Your task to perform on an android device: change the clock display to show seconds Image 0: 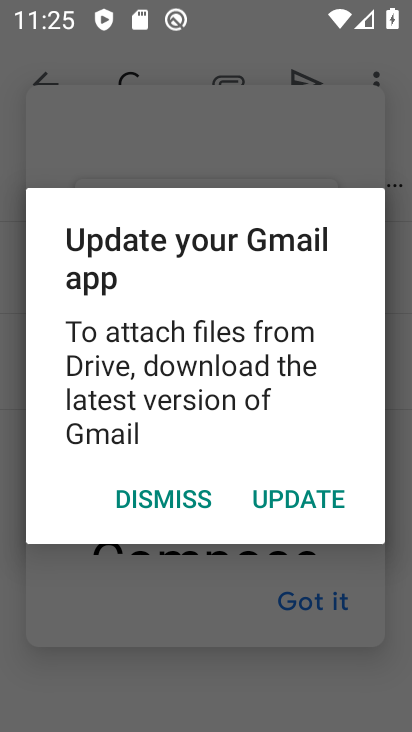
Step 0: press home button
Your task to perform on an android device: change the clock display to show seconds Image 1: 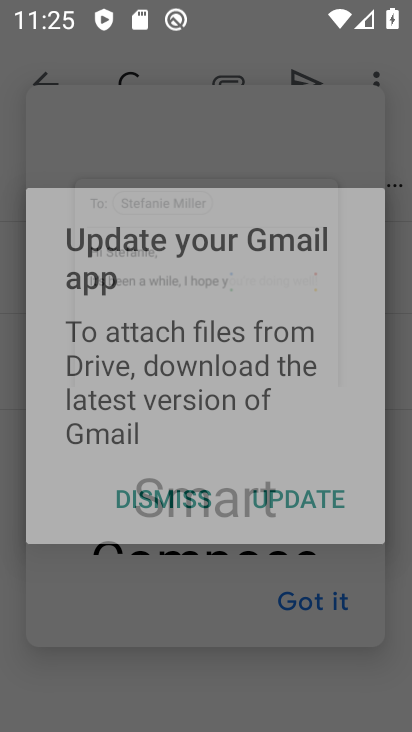
Step 1: press home button
Your task to perform on an android device: change the clock display to show seconds Image 2: 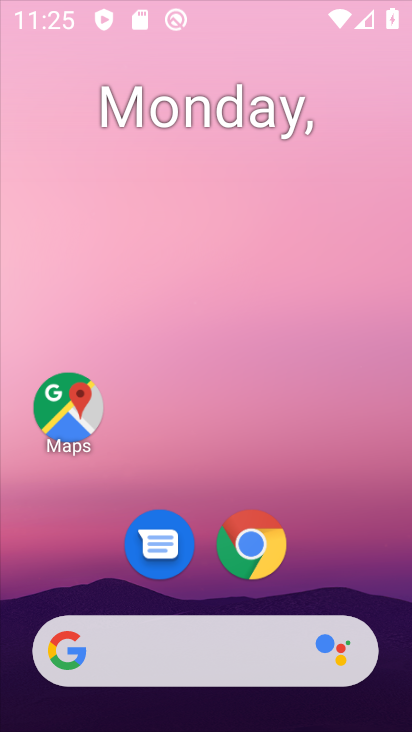
Step 2: press home button
Your task to perform on an android device: change the clock display to show seconds Image 3: 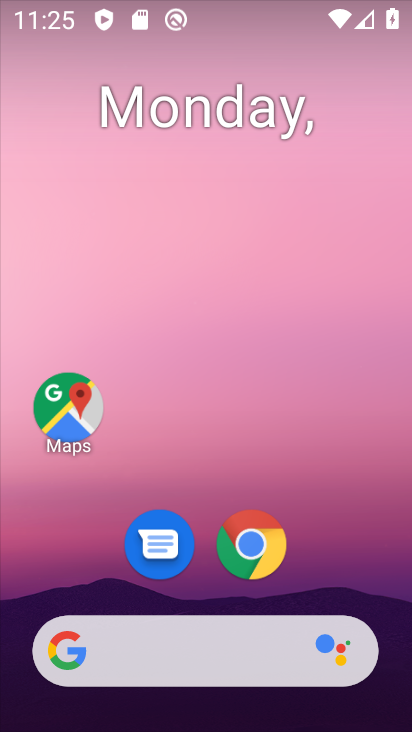
Step 3: drag from (339, 461) to (275, 170)
Your task to perform on an android device: change the clock display to show seconds Image 4: 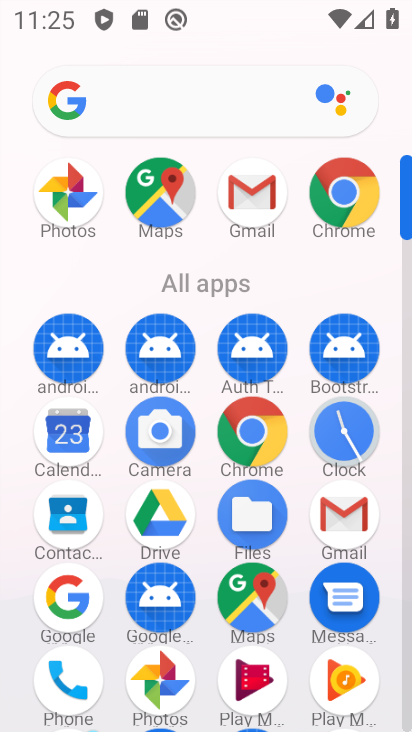
Step 4: click (327, 430)
Your task to perform on an android device: change the clock display to show seconds Image 5: 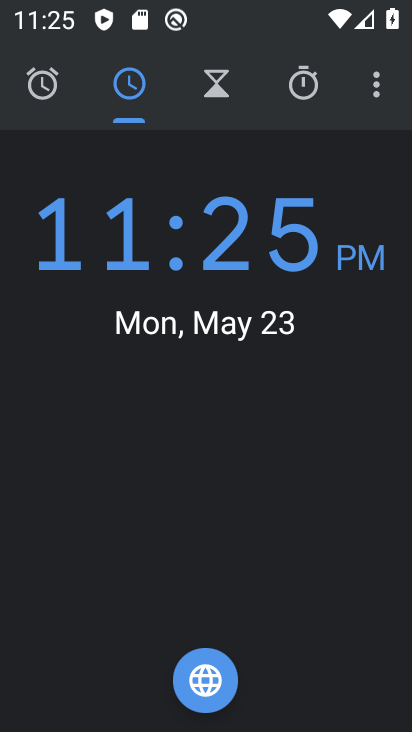
Step 5: click (362, 80)
Your task to perform on an android device: change the clock display to show seconds Image 6: 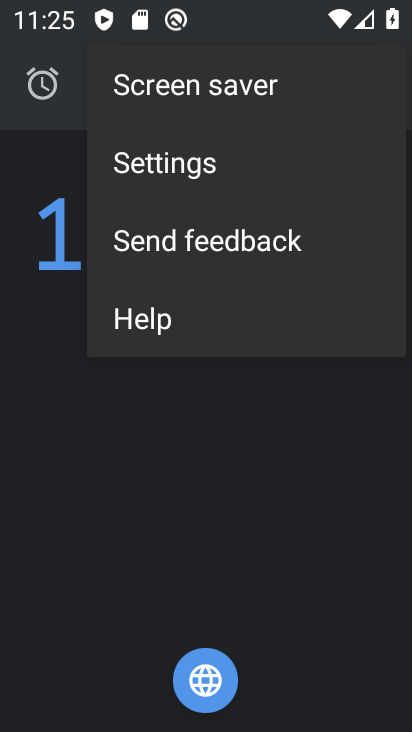
Step 6: click (171, 171)
Your task to perform on an android device: change the clock display to show seconds Image 7: 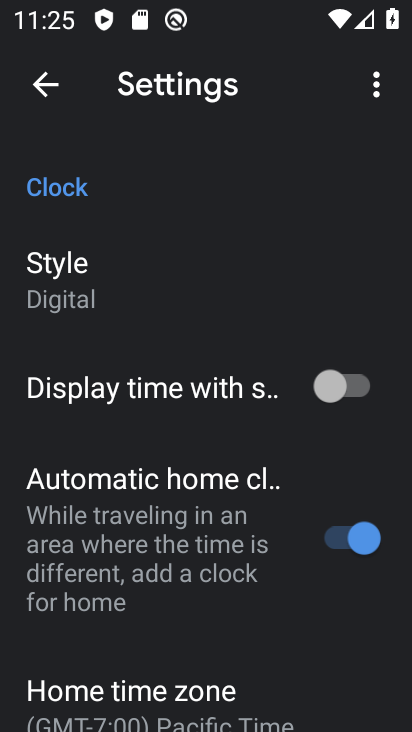
Step 7: drag from (213, 543) to (209, 284)
Your task to perform on an android device: change the clock display to show seconds Image 8: 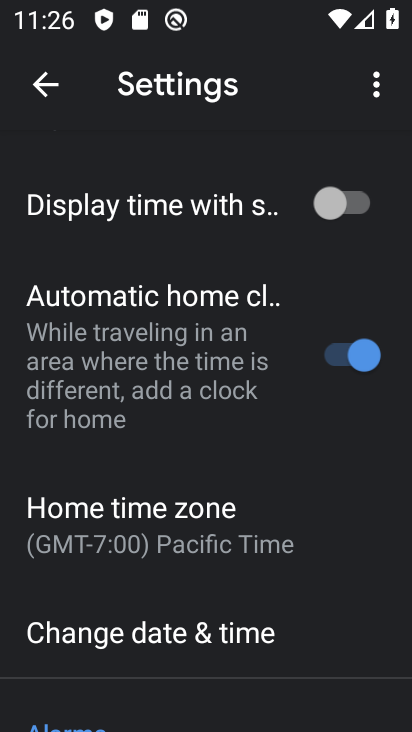
Step 8: drag from (270, 389) to (246, 259)
Your task to perform on an android device: change the clock display to show seconds Image 9: 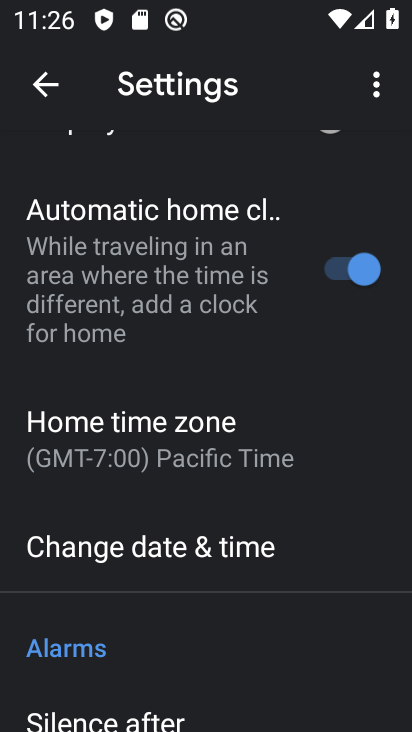
Step 9: drag from (266, 595) to (222, 277)
Your task to perform on an android device: change the clock display to show seconds Image 10: 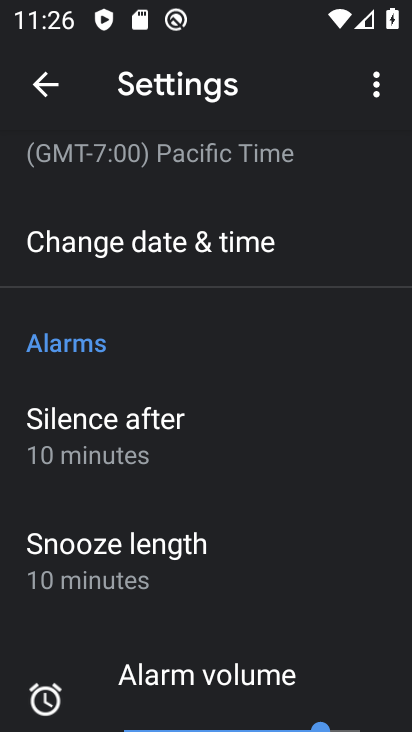
Step 10: drag from (279, 619) to (230, 278)
Your task to perform on an android device: change the clock display to show seconds Image 11: 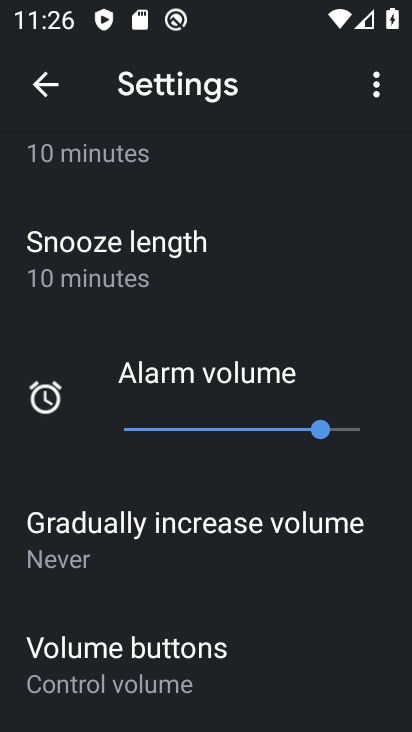
Step 11: drag from (220, 596) to (211, 328)
Your task to perform on an android device: change the clock display to show seconds Image 12: 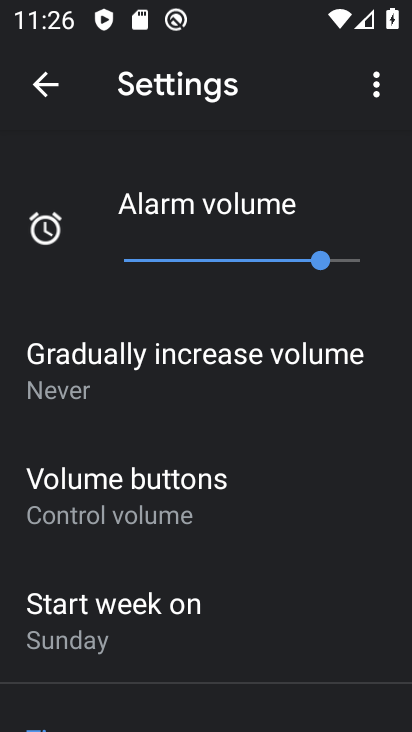
Step 12: drag from (262, 258) to (278, 420)
Your task to perform on an android device: change the clock display to show seconds Image 13: 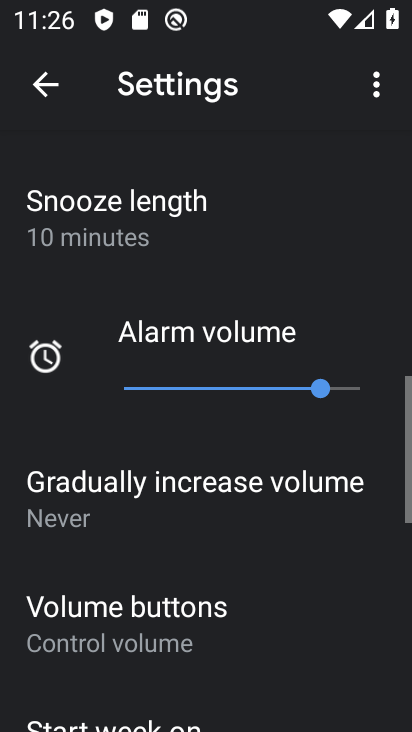
Step 13: drag from (279, 544) to (286, 248)
Your task to perform on an android device: change the clock display to show seconds Image 14: 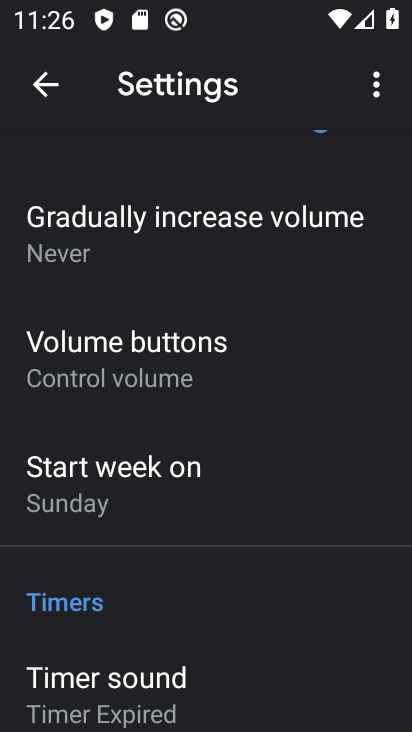
Step 14: drag from (260, 548) to (233, 211)
Your task to perform on an android device: change the clock display to show seconds Image 15: 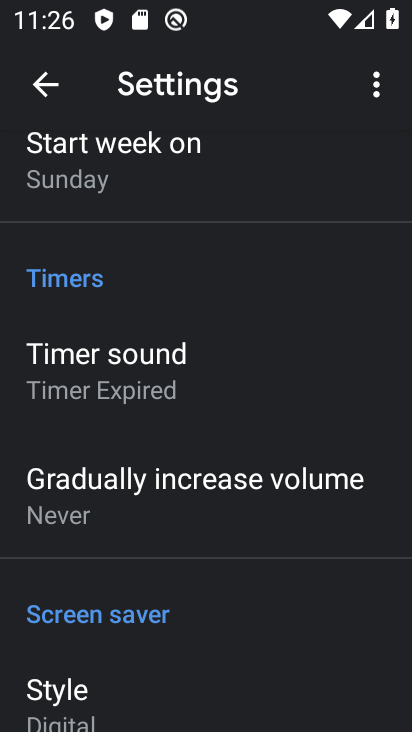
Step 15: drag from (239, 591) to (235, 224)
Your task to perform on an android device: change the clock display to show seconds Image 16: 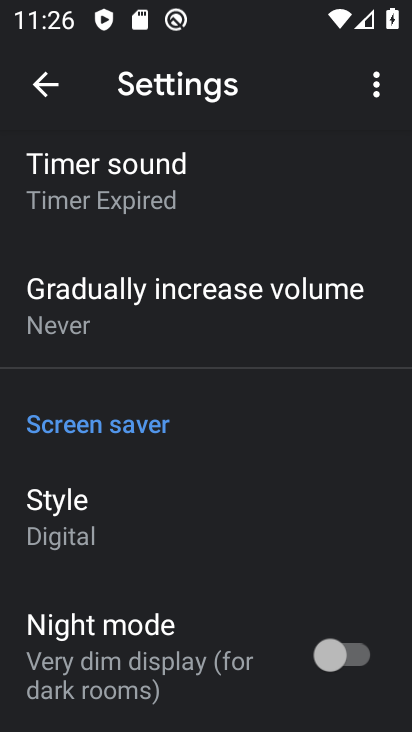
Step 16: drag from (227, 654) to (209, 283)
Your task to perform on an android device: change the clock display to show seconds Image 17: 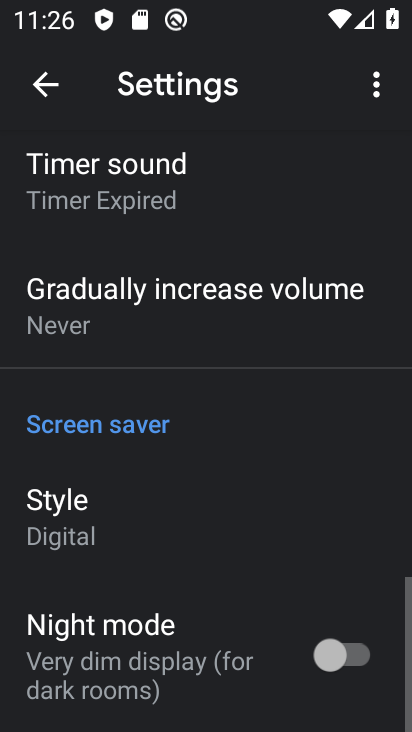
Step 17: drag from (232, 285) to (278, 598)
Your task to perform on an android device: change the clock display to show seconds Image 18: 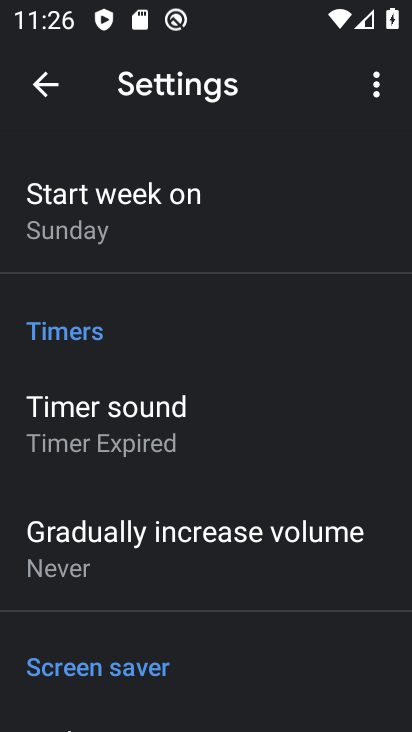
Step 18: drag from (261, 347) to (278, 594)
Your task to perform on an android device: change the clock display to show seconds Image 19: 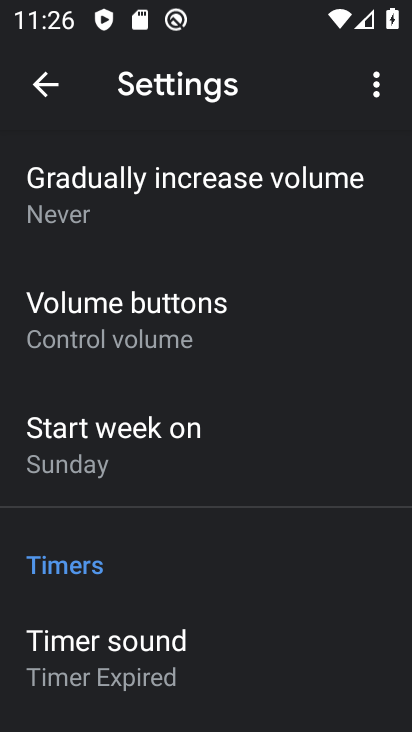
Step 19: drag from (280, 310) to (307, 571)
Your task to perform on an android device: change the clock display to show seconds Image 20: 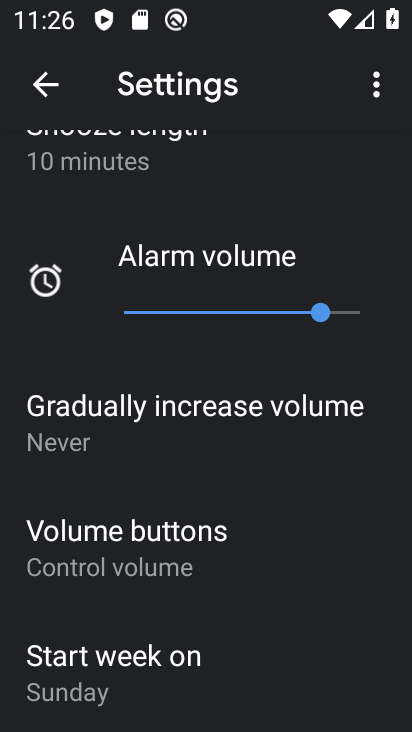
Step 20: drag from (233, 351) to (261, 571)
Your task to perform on an android device: change the clock display to show seconds Image 21: 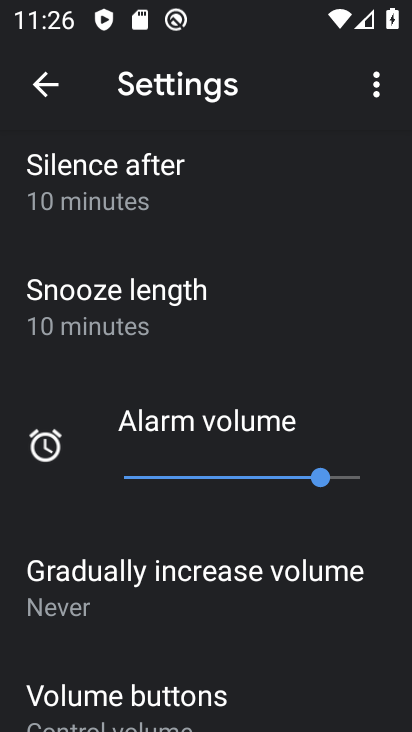
Step 21: drag from (244, 258) to (245, 595)
Your task to perform on an android device: change the clock display to show seconds Image 22: 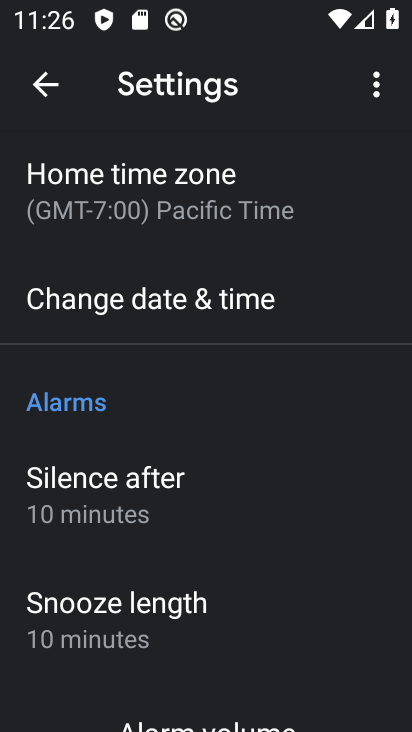
Step 22: drag from (302, 245) to (289, 644)
Your task to perform on an android device: change the clock display to show seconds Image 23: 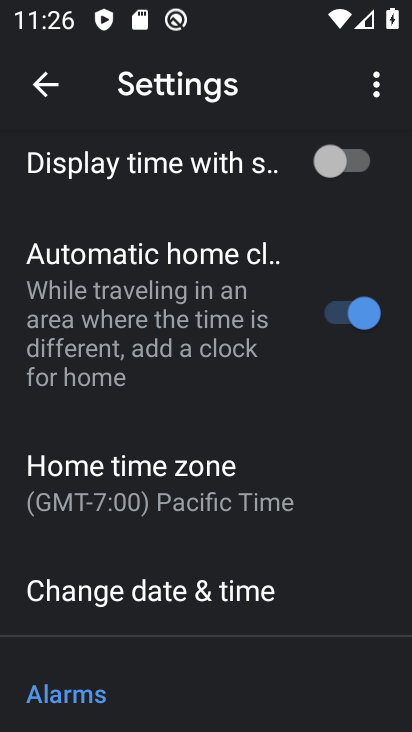
Step 23: drag from (199, 262) to (224, 623)
Your task to perform on an android device: change the clock display to show seconds Image 24: 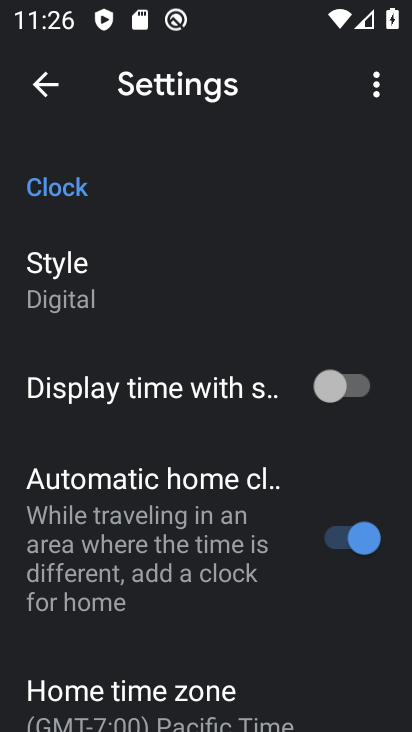
Step 24: click (137, 391)
Your task to perform on an android device: change the clock display to show seconds Image 25: 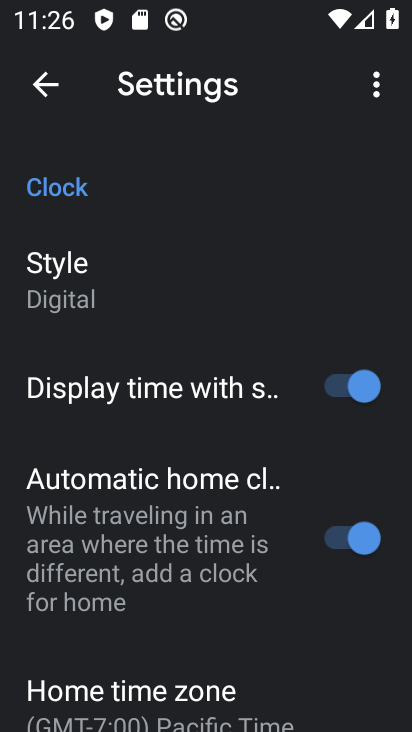
Step 25: task complete